Your task to perform on an android device: install app "Google Calendar" Image 0: 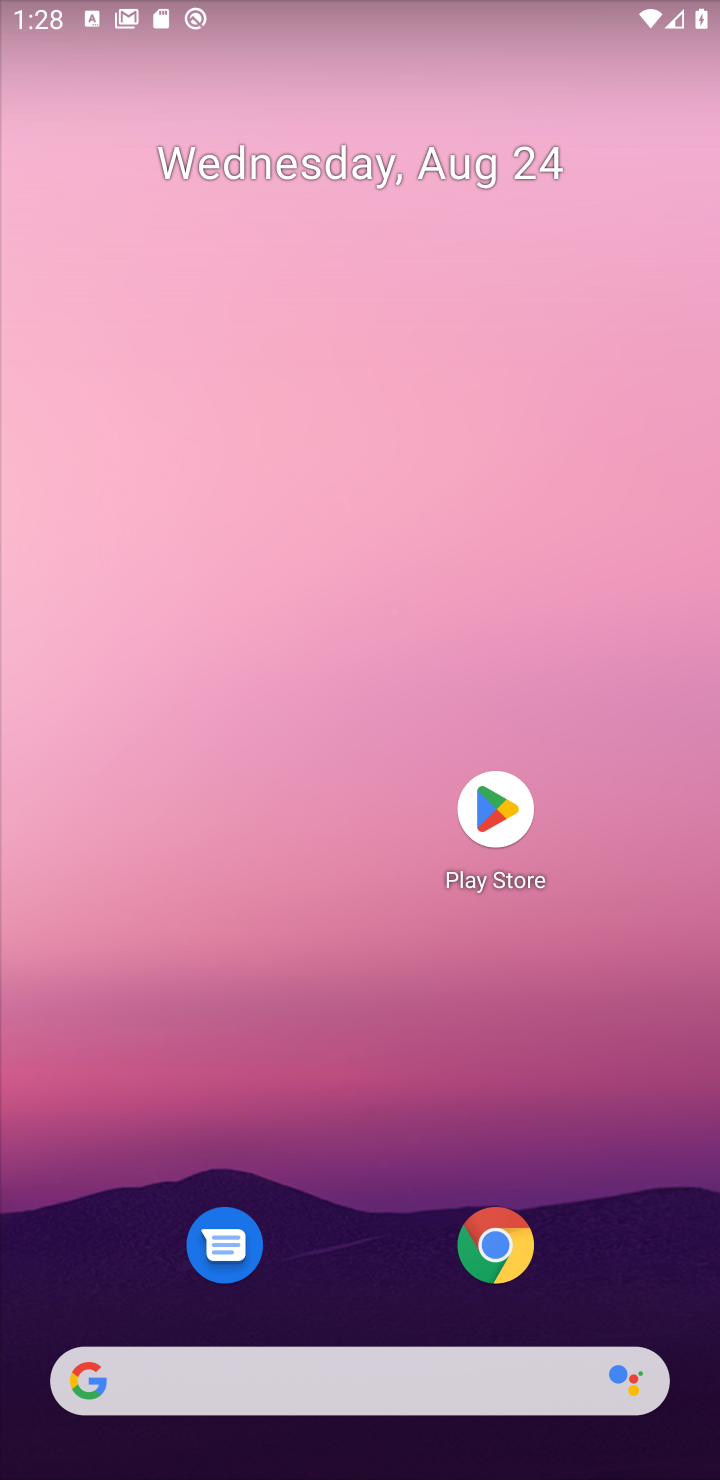
Step 0: click (480, 800)
Your task to perform on an android device: install app "Google Calendar" Image 1: 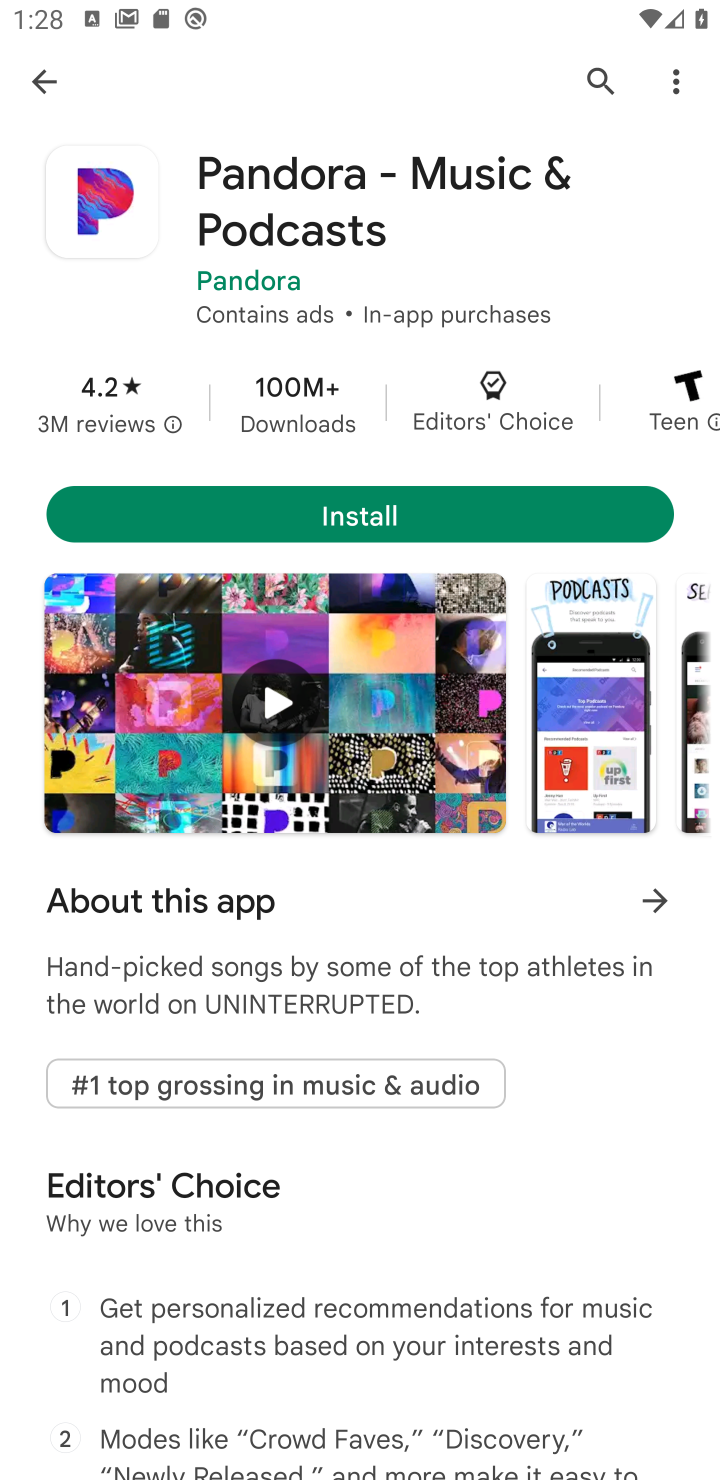
Step 1: click (588, 70)
Your task to perform on an android device: install app "Google Calendar" Image 2: 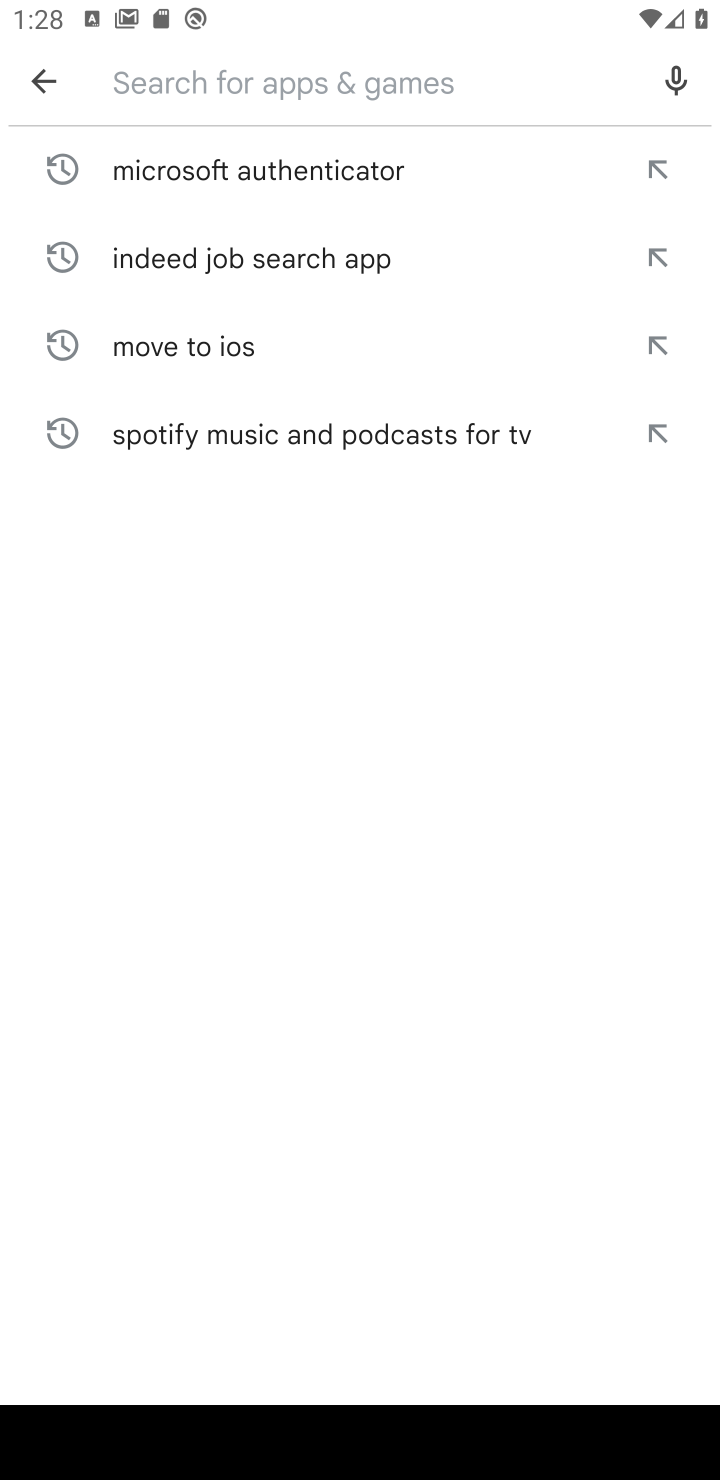
Step 2: type "Google Calendar"
Your task to perform on an android device: install app "Google Calendar" Image 3: 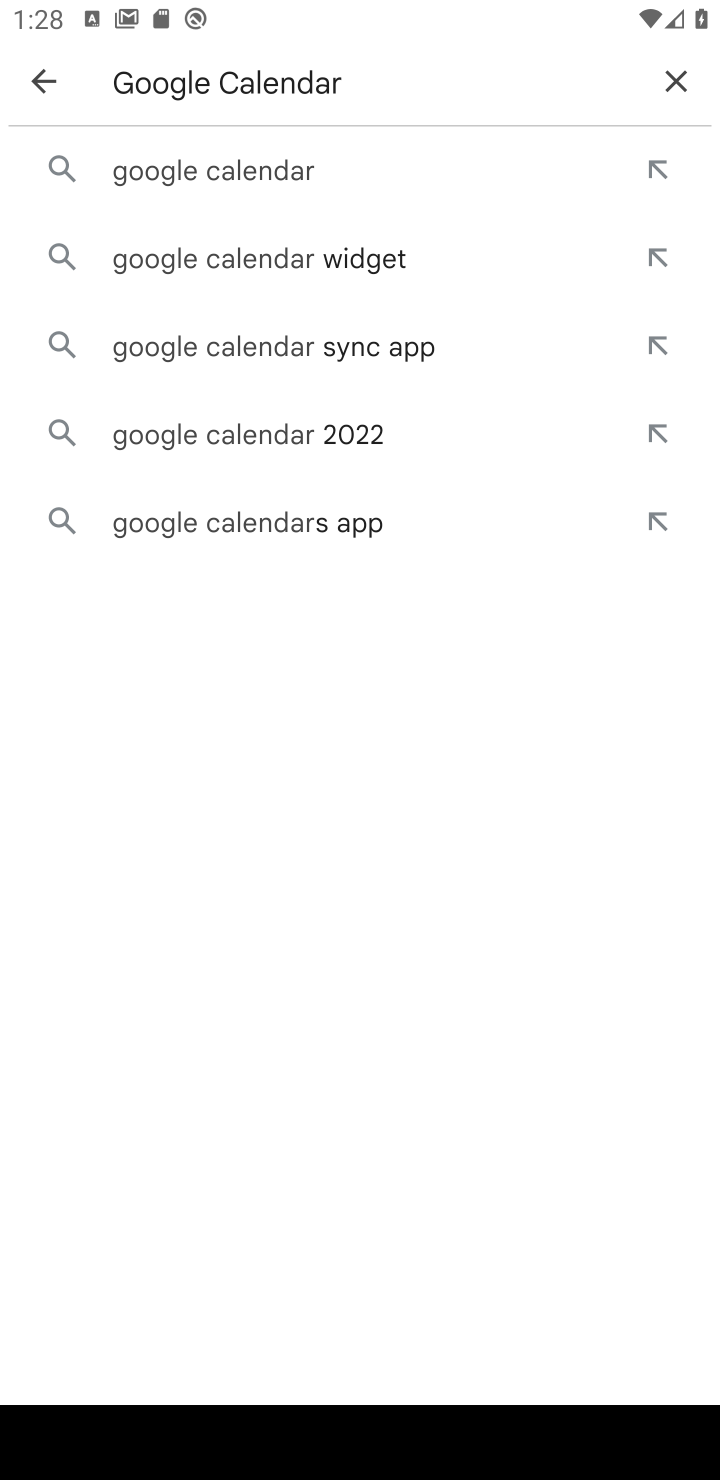
Step 3: click (189, 174)
Your task to perform on an android device: install app "Google Calendar" Image 4: 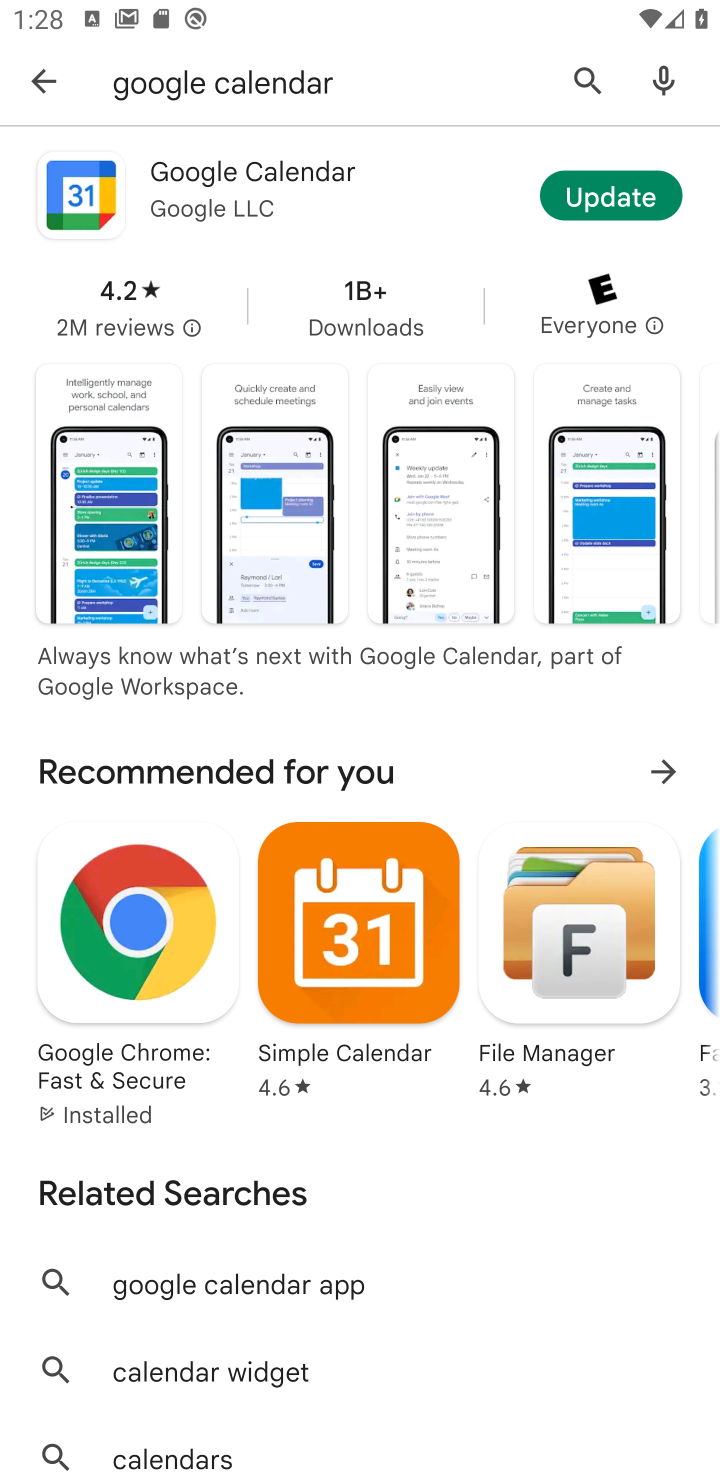
Step 4: click (211, 177)
Your task to perform on an android device: install app "Google Calendar" Image 5: 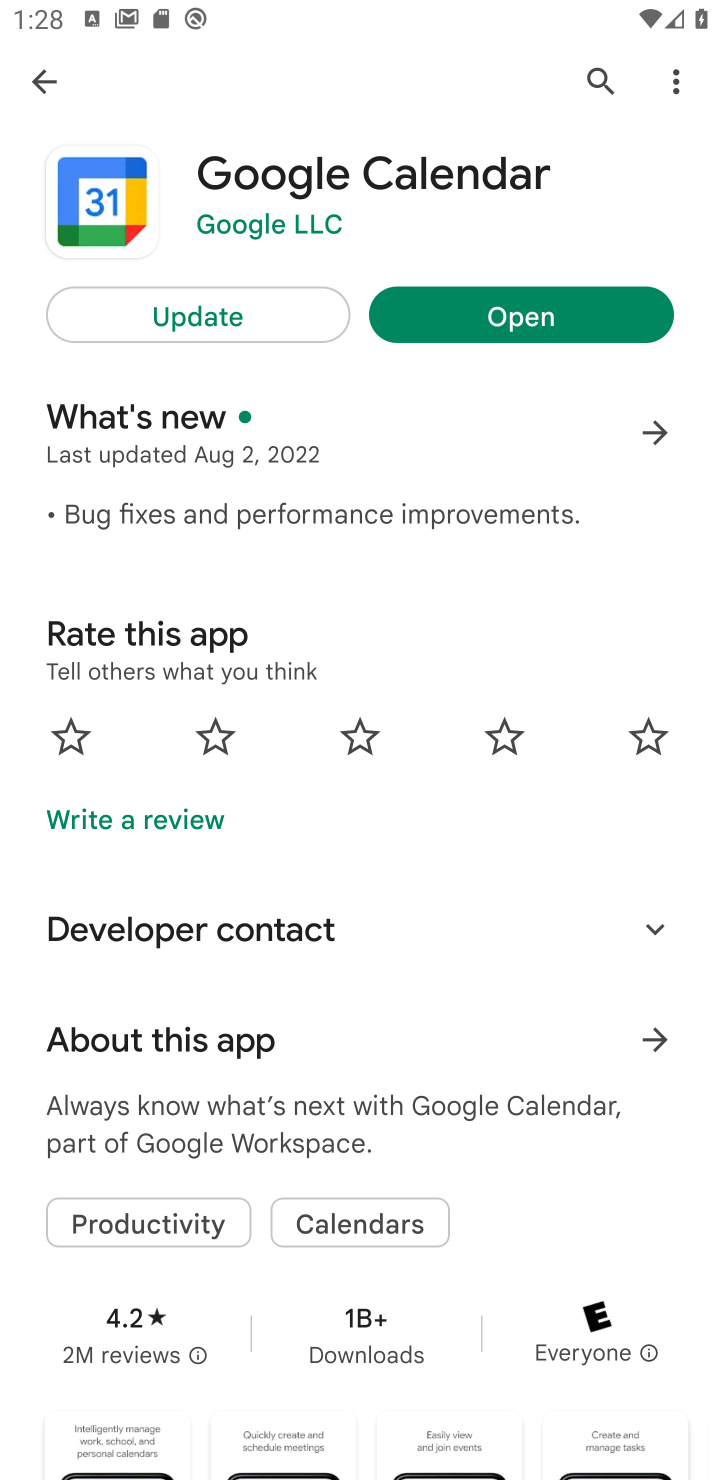
Step 5: task complete